Your task to perform on an android device: What's the news? Image 0: 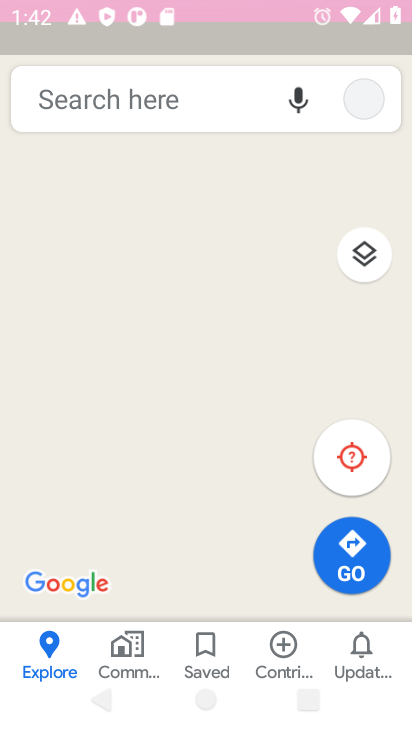
Step 0: press home button
Your task to perform on an android device: What's the news? Image 1: 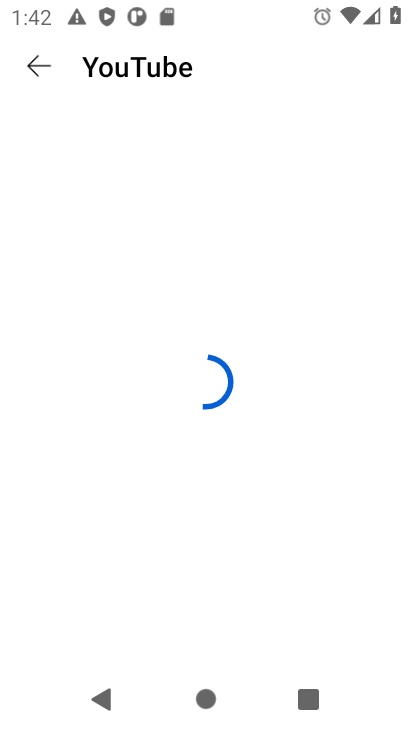
Step 1: click (361, 237)
Your task to perform on an android device: What's the news? Image 2: 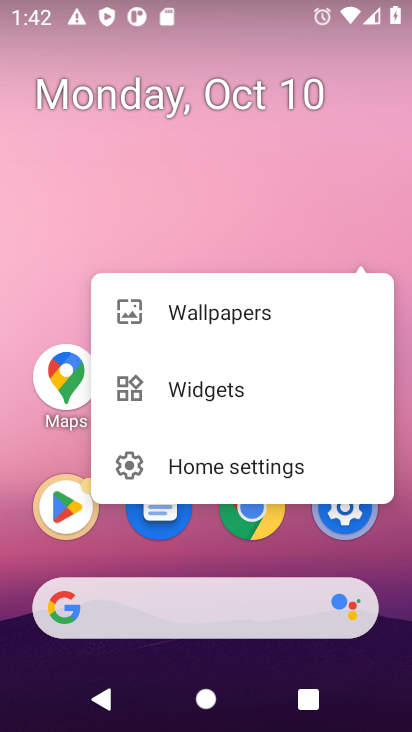
Step 2: click (383, 565)
Your task to perform on an android device: What's the news? Image 3: 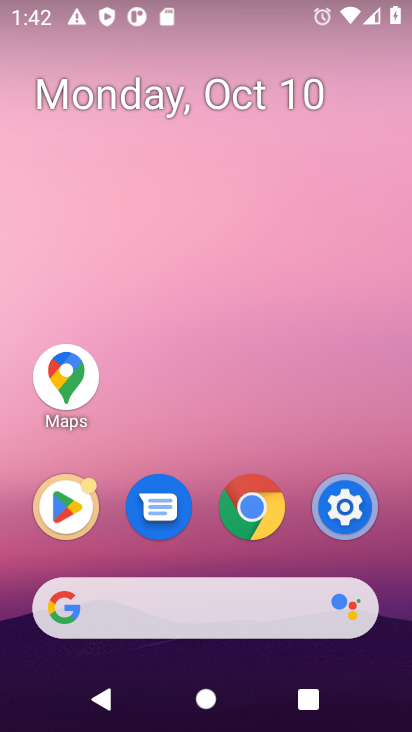
Step 3: drag from (379, 566) to (388, 83)
Your task to perform on an android device: What's the news? Image 4: 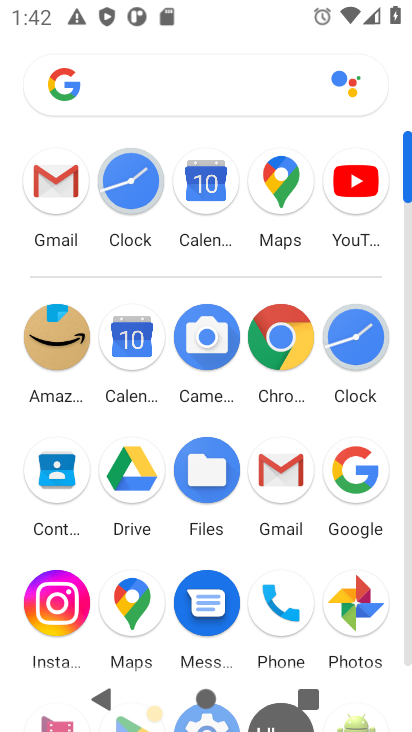
Step 4: click (139, 597)
Your task to perform on an android device: What's the news? Image 5: 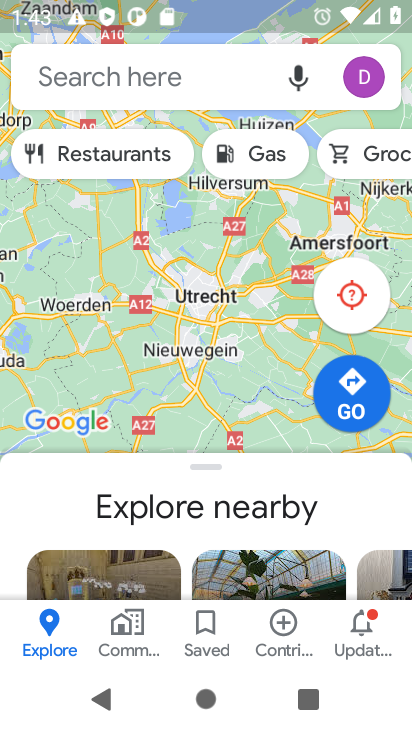
Step 5: press home button
Your task to perform on an android device: What's the news? Image 6: 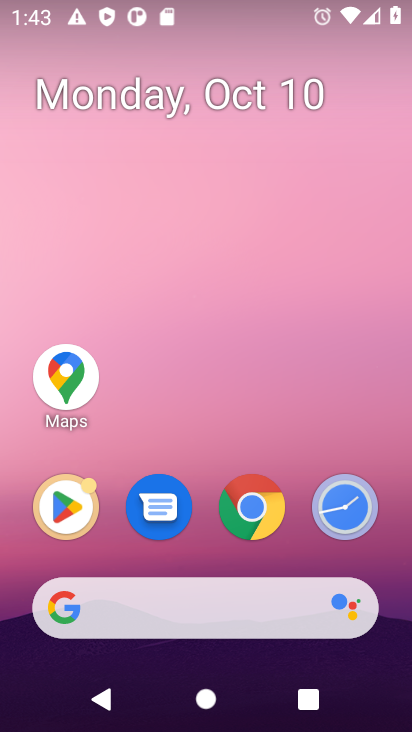
Step 6: click (243, 600)
Your task to perform on an android device: What's the news? Image 7: 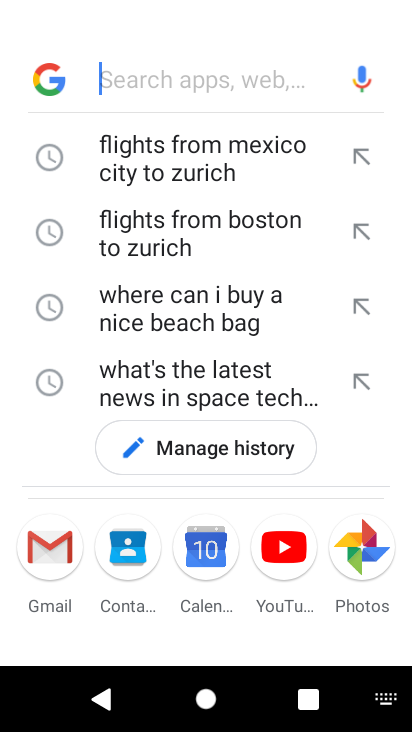
Step 7: type "What's the news?"
Your task to perform on an android device: What's the news? Image 8: 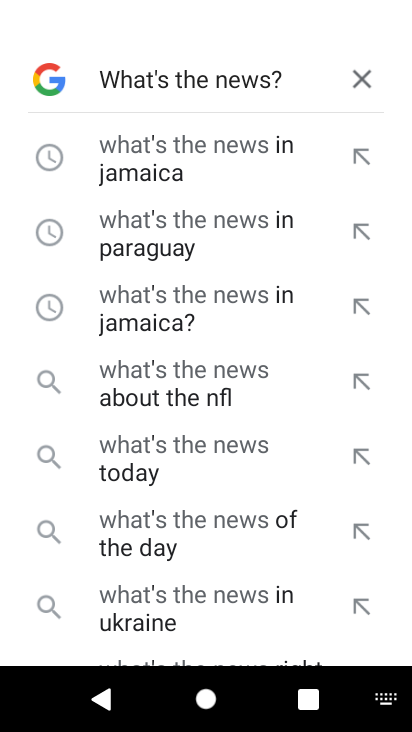
Step 8: press enter
Your task to perform on an android device: What's the news? Image 9: 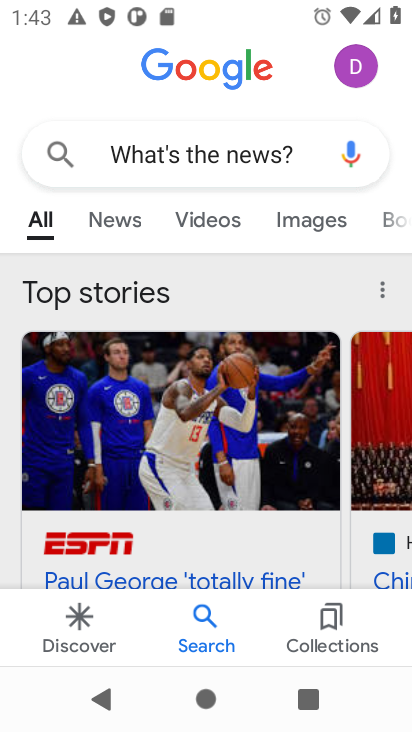
Step 9: task complete